Your task to perform on an android device: turn pop-ups off in chrome Image 0: 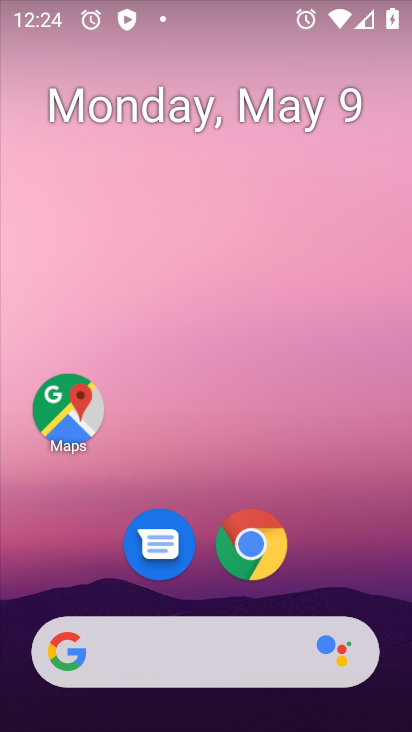
Step 0: click (254, 559)
Your task to perform on an android device: turn pop-ups off in chrome Image 1: 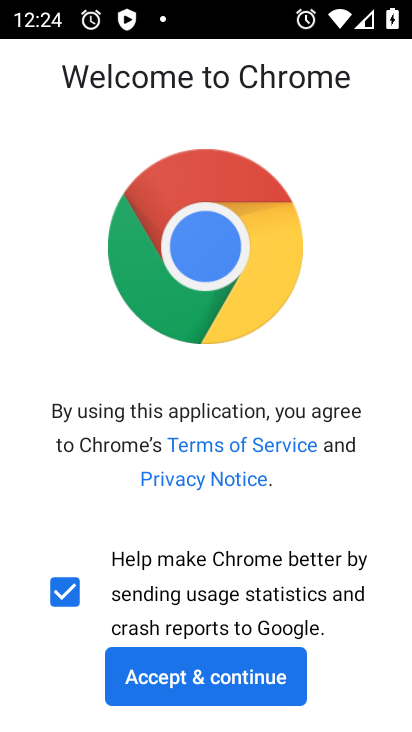
Step 1: click (206, 672)
Your task to perform on an android device: turn pop-ups off in chrome Image 2: 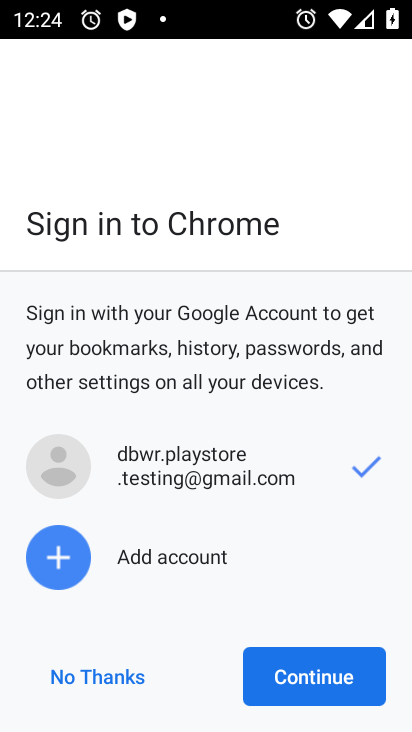
Step 2: click (317, 695)
Your task to perform on an android device: turn pop-ups off in chrome Image 3: 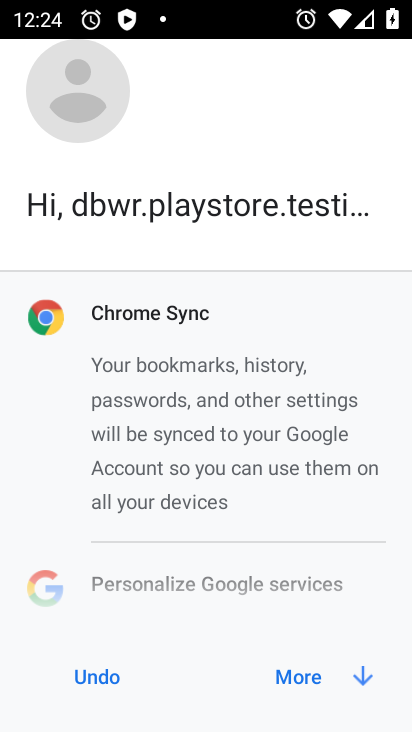
Step 3: click (317, 695)
Your task to perform on an android device: turn pop-ups off in chrome Image 4: 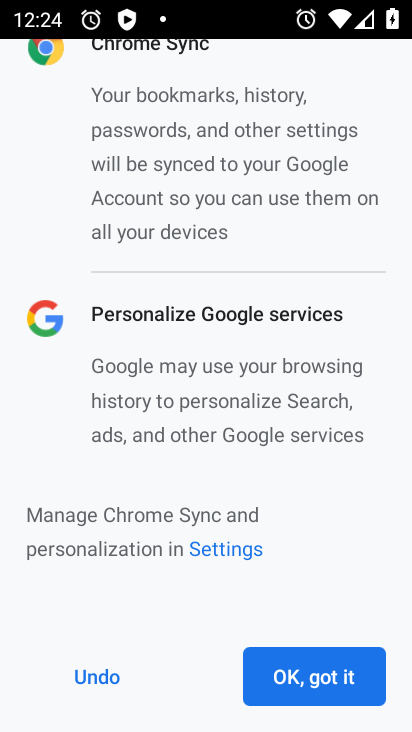
Step 4: click (317, 695)
Your task to perform on an android device: turn pop-ups off in chrome Image 5: 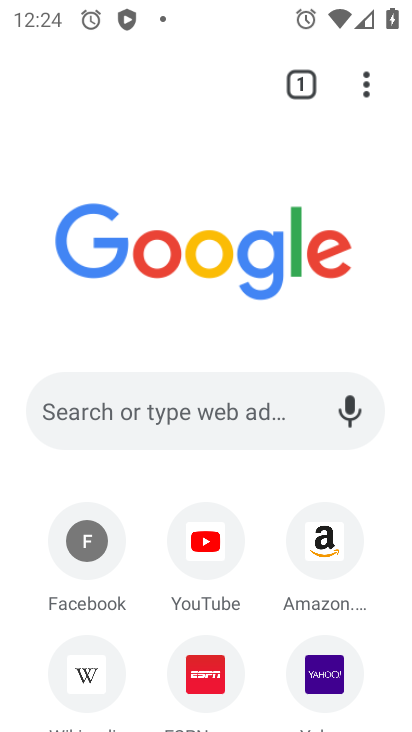
Step 5: click (371, 97)
Your task to perform on an android device: turn pop-ups off in chrome Image 6: 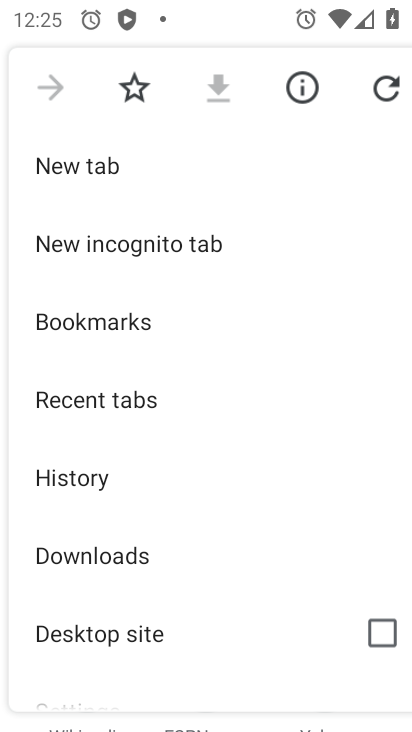
Step 6: drag from (191, 666) to (230, 177)
Your task to perform on an android device: turn pop-ups off in chrome Image 7: 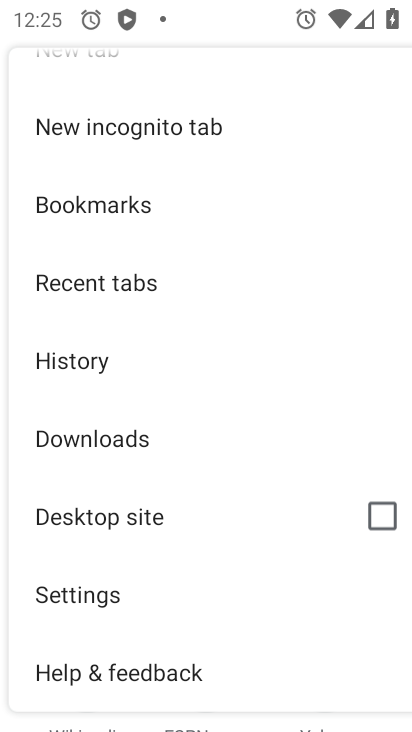
Step 7: drag from (236, 358) to (259, 33)
Your task to perform on an android device: turn pop-ups off in chrome Image 8: 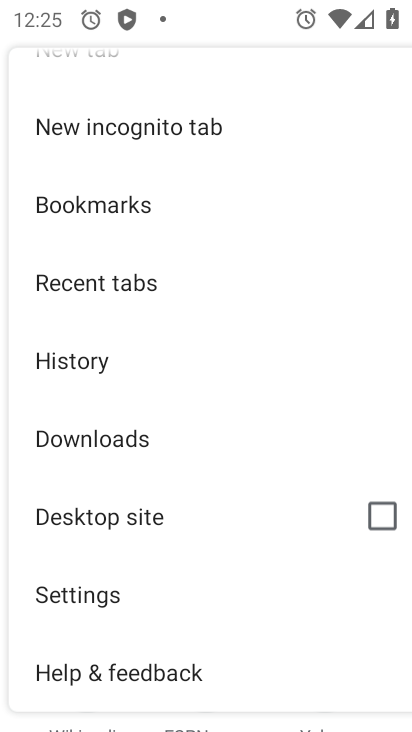
Step 8: click (115, 586)
Your task to perform on an android device: turn pop-ups off in chrome Image 9: 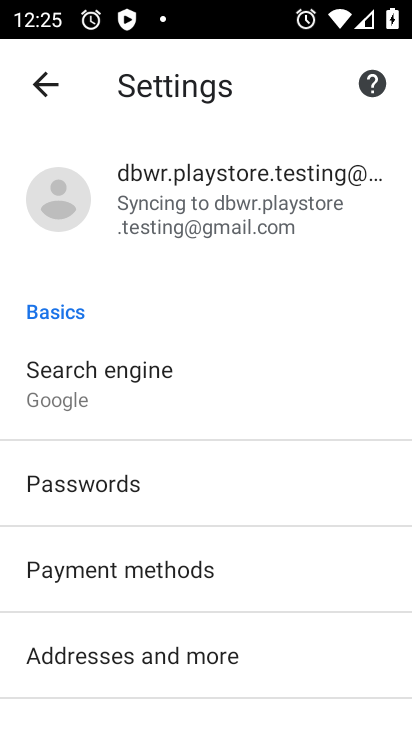
Step 9: drag from (173, 610) to (258, 107)
Your task to perform on an android device: turn pop-ups off in chrome Image 10: 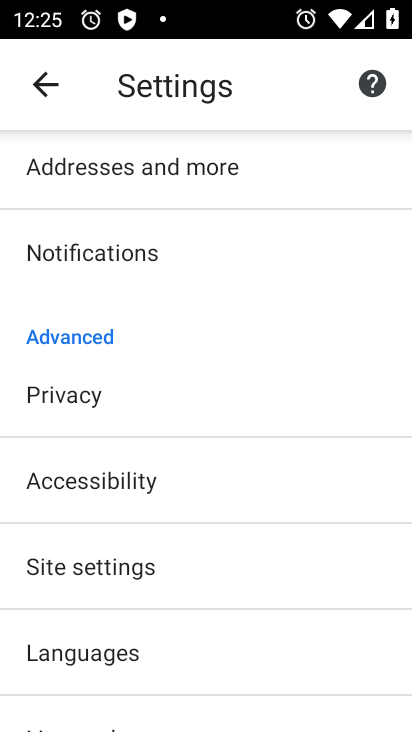
Step 10: drag from (243, 617) to (137, 55)
Your task to perform on an android device: turn pop-ups off in chrome Image 11: 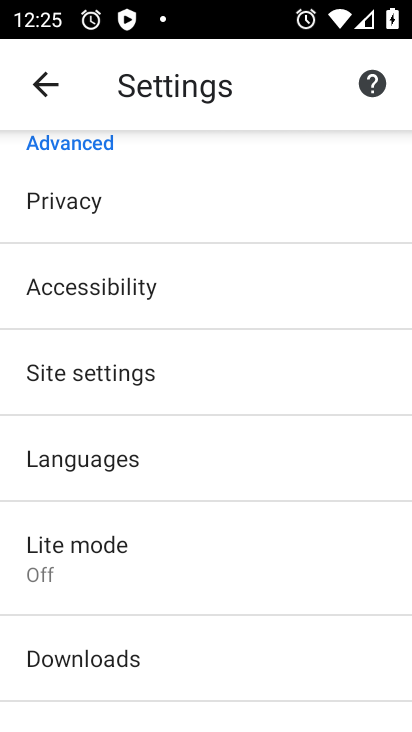
Step 11: click (212, 384)
Your task to perform on an android device: turn pop-ups off in chrome Image 12: 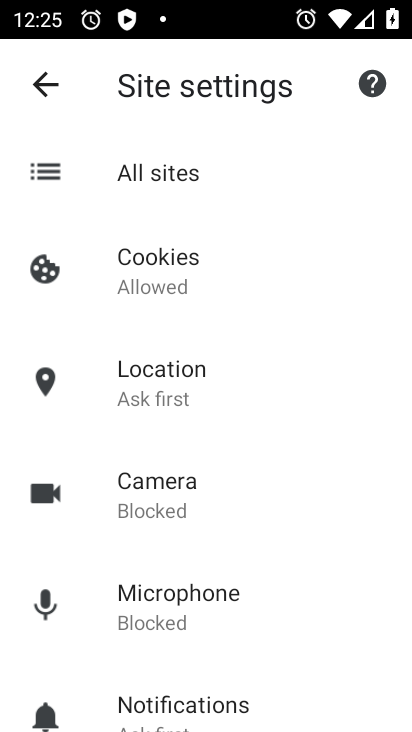
Step 12: drag from (198, 636) to (213, 294)
Your task to perform on an android device: turn pop-ups off in chrome Image 13: 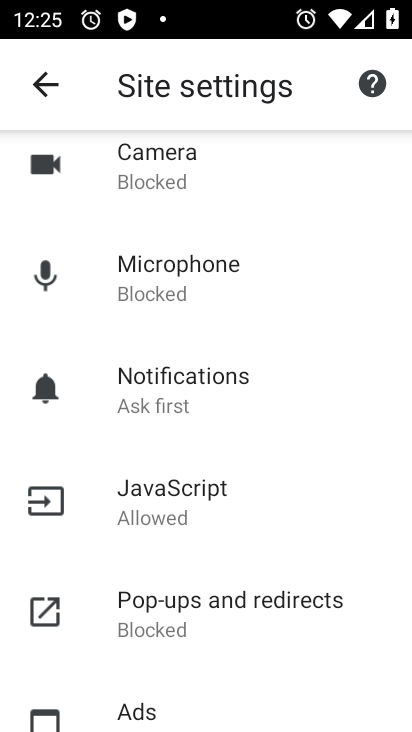
Step 13: click (224, 591)
Your task to perform on an android device: turn pop-ups off in chrome Image 14: 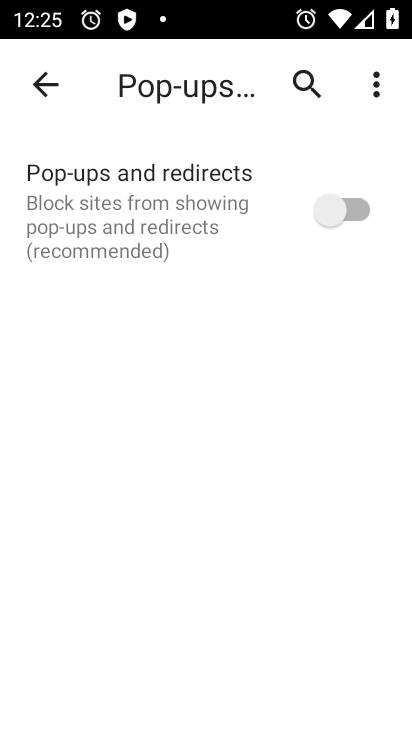
Step 14: task complete